Your task to perform on an android device: Open CNN.com Image 0: 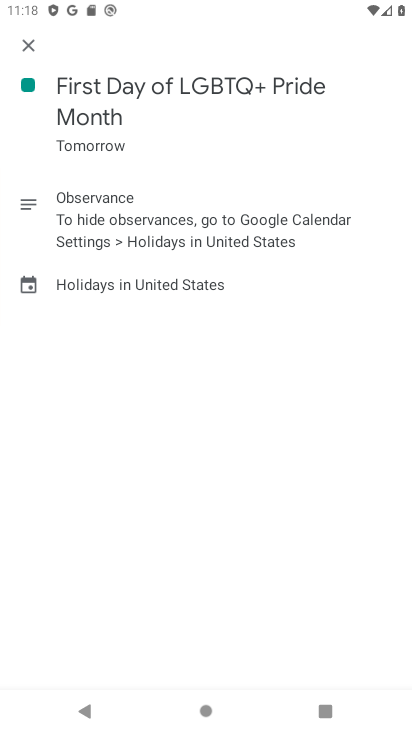
Step 0: press home button
Your task to perform on an android device: Open CNN.com Image 1: 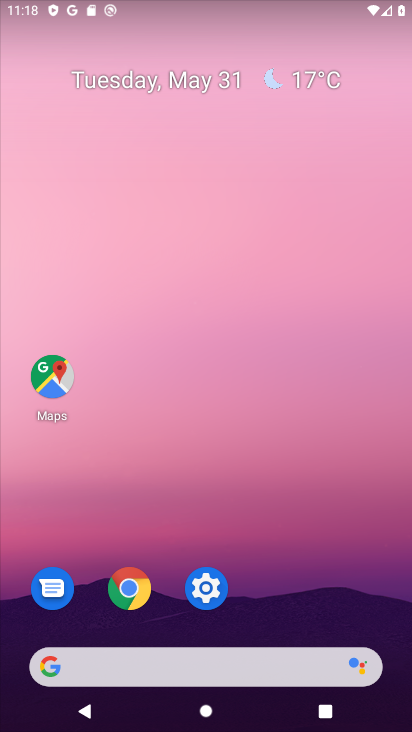
Step 1: click (126, 583)
Your task to perform on an android device: Open CNN.com Image 2: 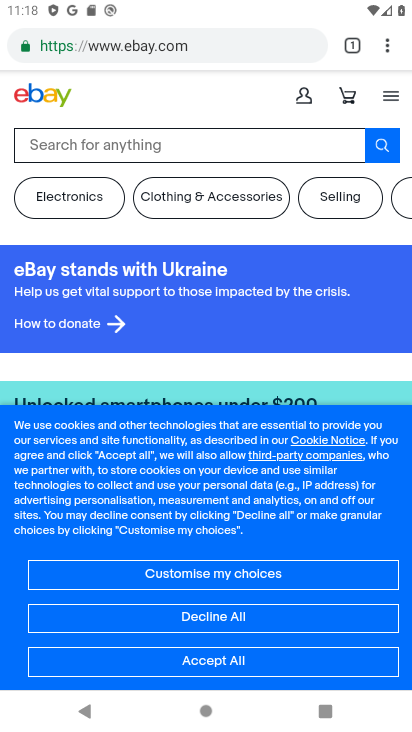
Step 2: task complete